Your task to perform on an android device: read, delete, or share a saved page in the chrome app Image 0: 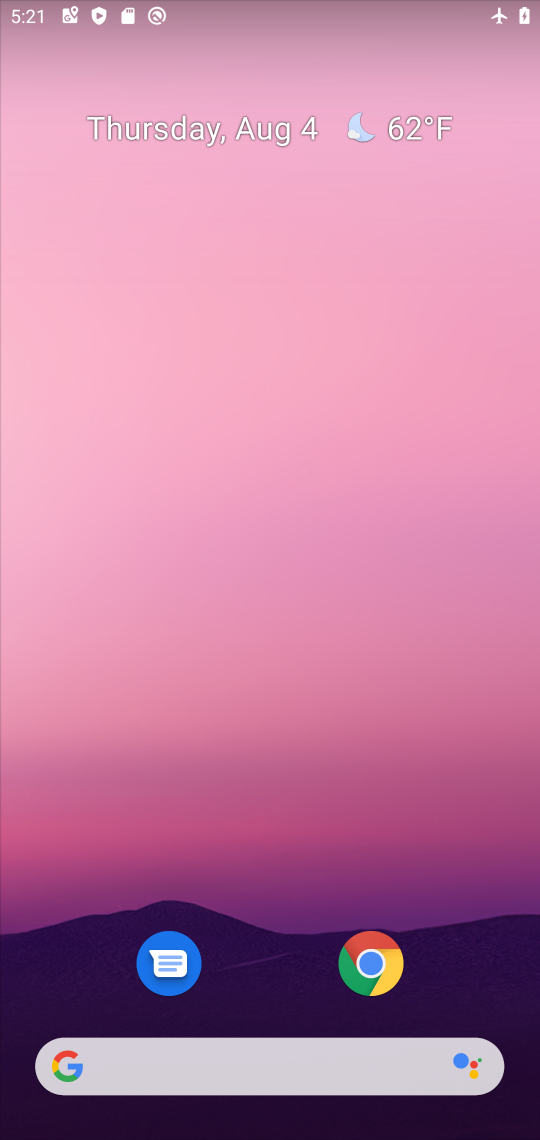
Step 0: press home button
Your task to perform on an android device: read, delete, or share a saved page in the chrome app Image 1: 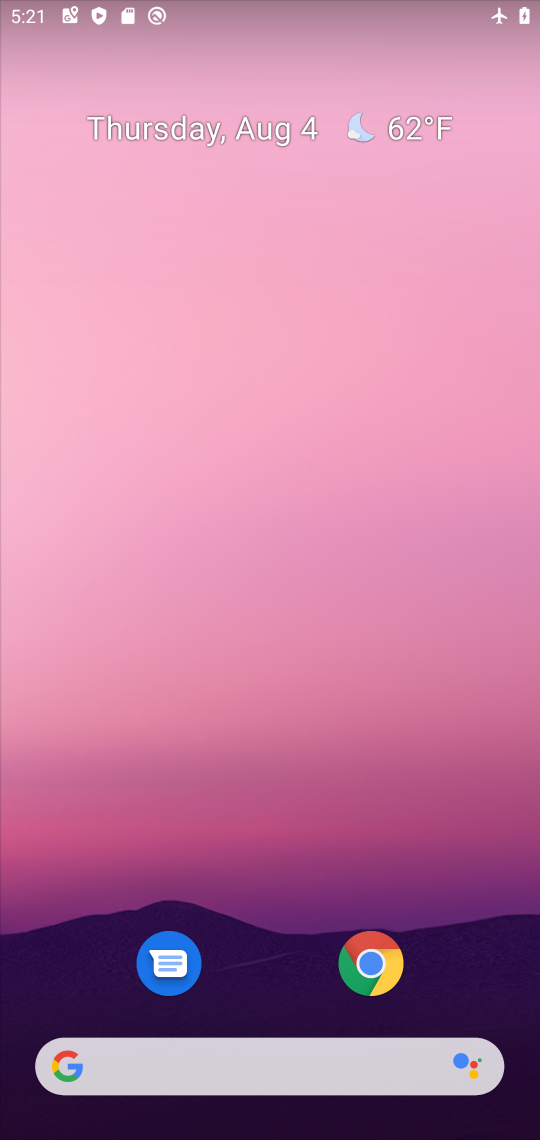
Step 1: click (380, 964)
Your task to perform on an android device: read, delete, or share a saved page in the chrome app Image 2: 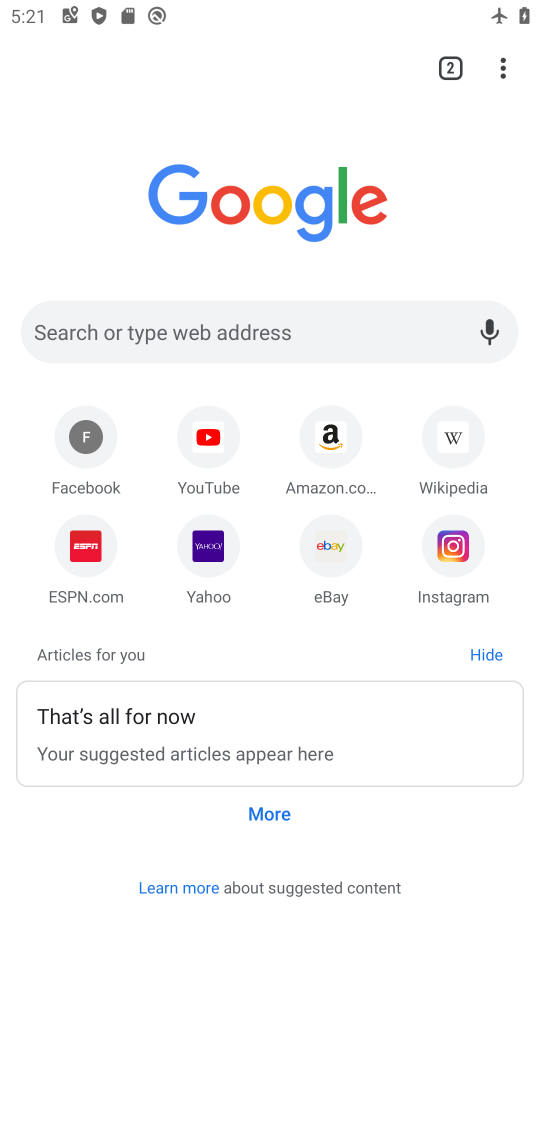
Step 2: click (515, 61)
Your task to perform on an android device: read, delete, or share a saved page in the chrome app Image 3: 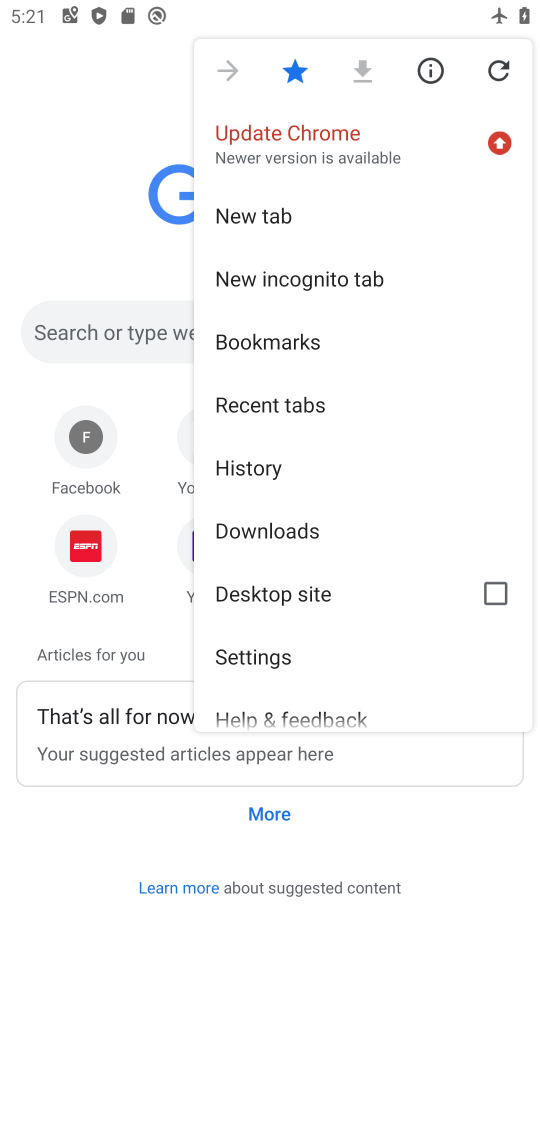
Step 3: click (278, 532)
Your task to perform on an android device: read, delete, or share a saved page in the chrome app Image 4: 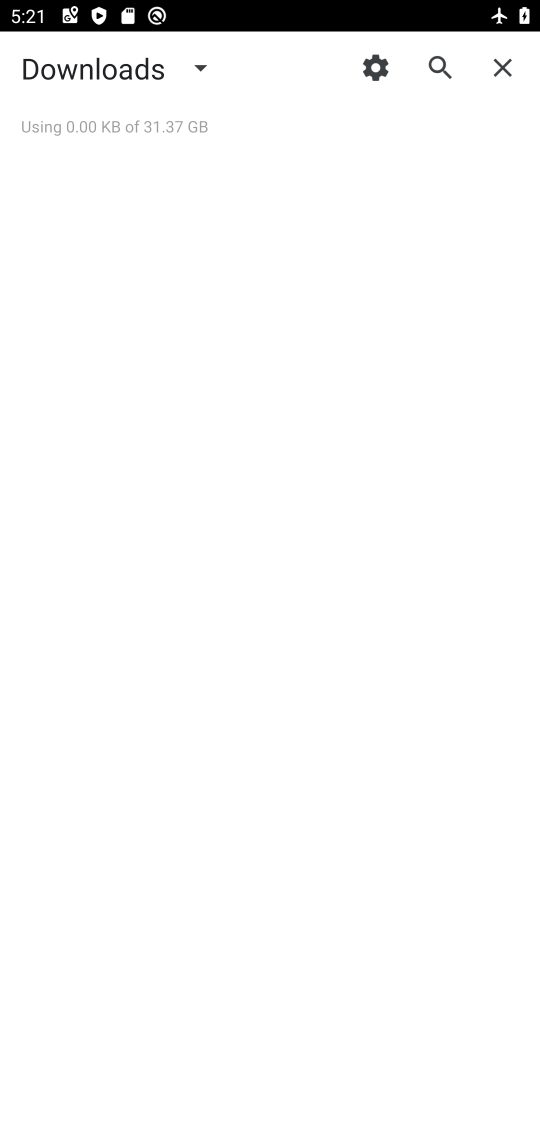
Step 4: task complete